Your task to perform on an android device: Do I have any events tomorrow? Image 0: 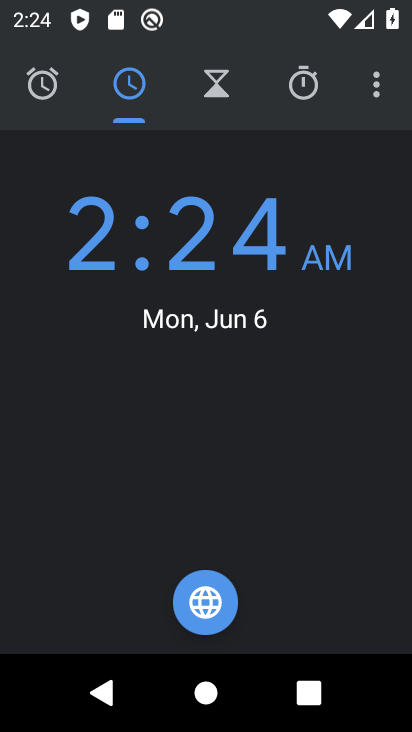
Step 0: press home button
Your task to perform on an android device: Do I have any events tomorrow? Image 1: 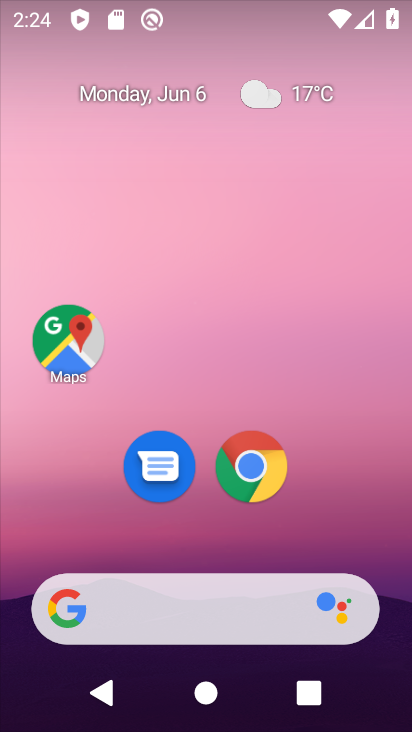
Step 1: drag from (360, 552) to (107, 9)
Your task to perform on an android device: Do I have any events tomorrow? Image 2: 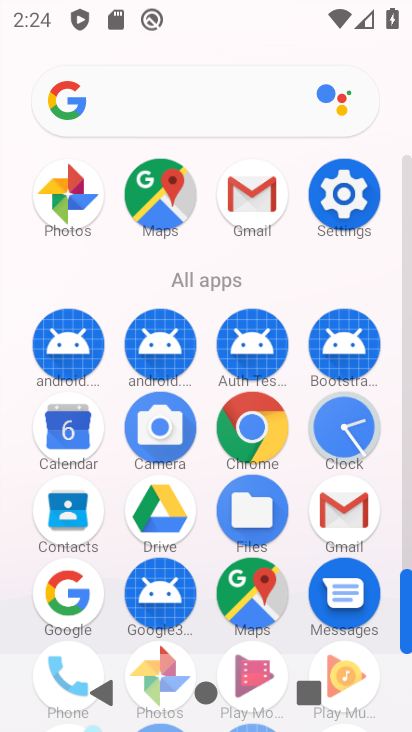
Step 2: click (64, 436)
Your task to perform on an android device: Do I have any events tomorrow? Image 3: 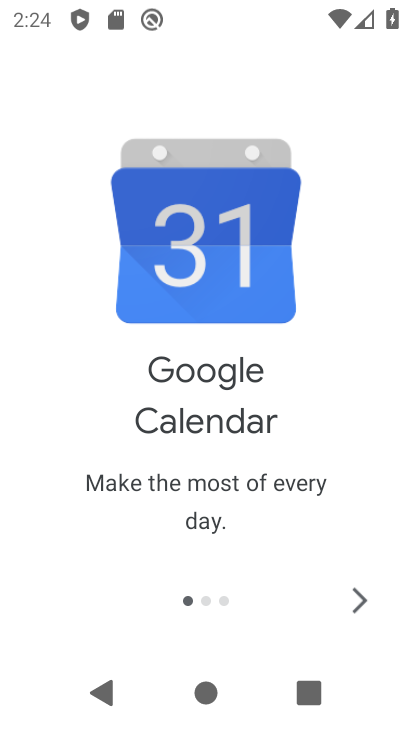
Step 3: click (369, 609)
Your task to perform on an android device: Do I have any events tomorrow? Image 4: 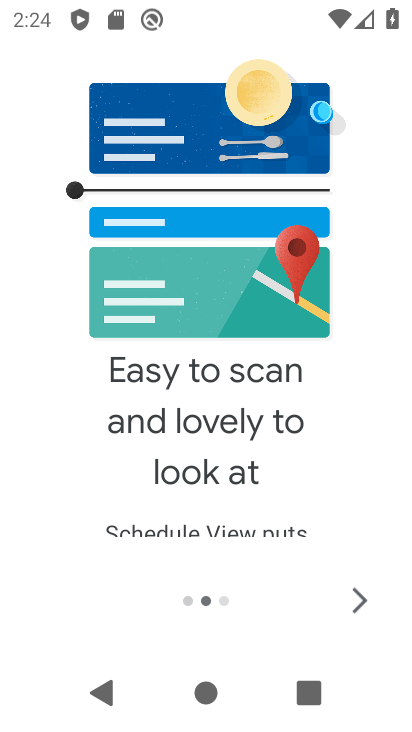
Step 4: click (365, 607)
Your task to perform on an android device: Do I have any events tomorrow? Image 5: 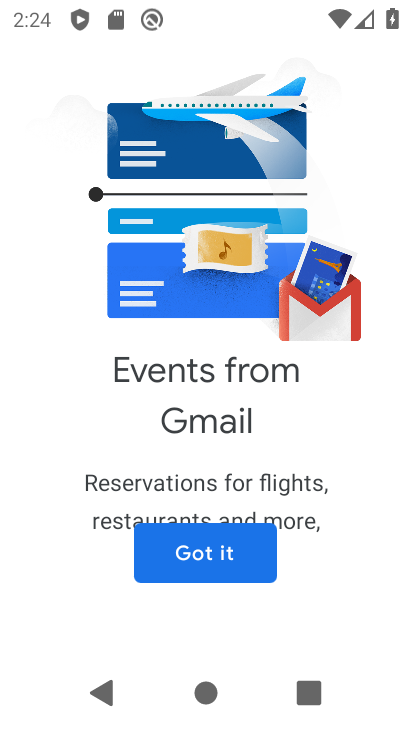
Step 5: click (211, 571)
Your task to perform on an android device: Do I have any events tomorrow? Image 6: 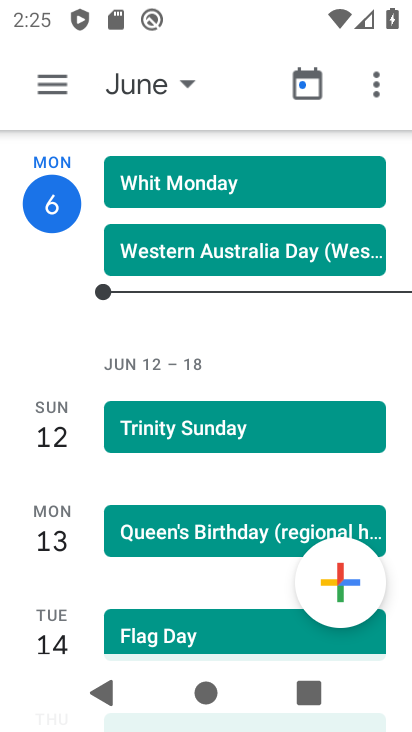
Step 6: click (62, 574)
Your task to perform on an android device: Do I have any events tomorrow? Image 7: 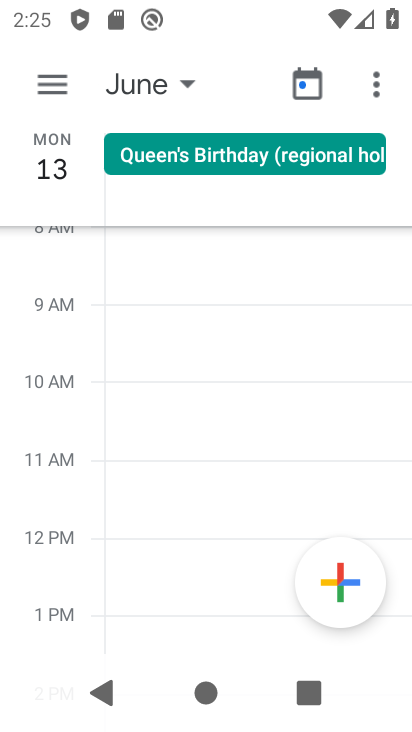
Step 7: click (184, 81)
Your task to perform on an android device: Do I have any events tomorrow? Image 8: 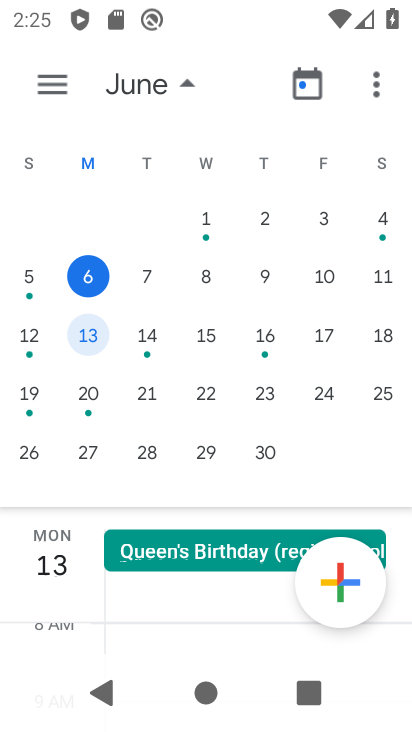
Step 8: click (168, 81)
Your task to perform on an android device: Do I have any events tomorrow? Image 9: 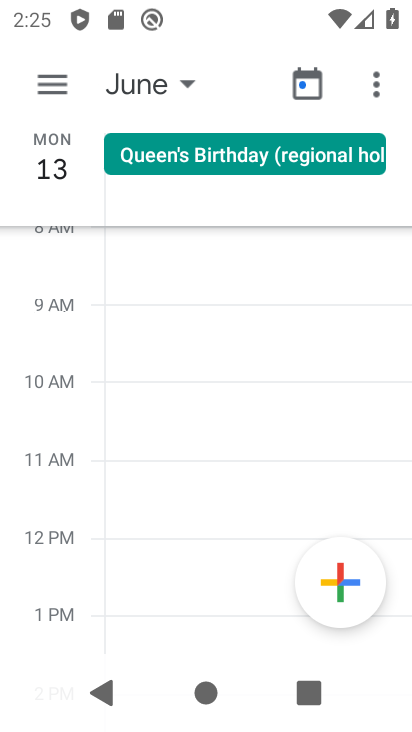
Step 9: click (168, 81)
Your task to perform on an android device: Do I have any events tomorrow? Image 10: 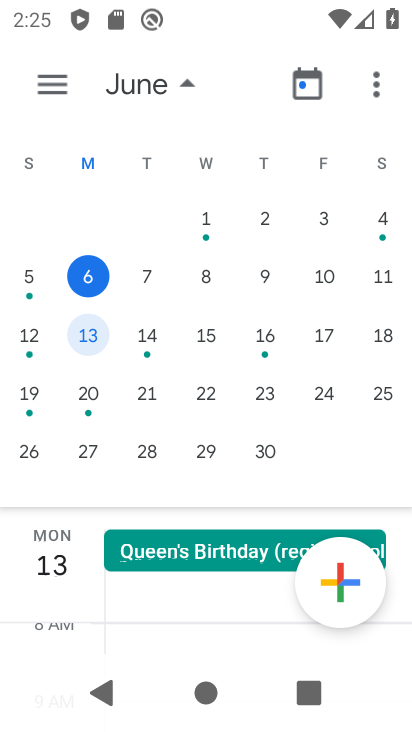
Step 10: click (150, 275)
Your task to perform on an android device: Do I have any events tomorrow? Image 11: 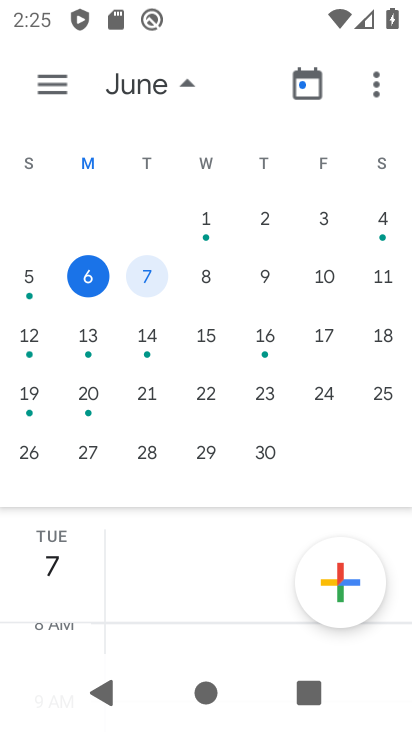
Step 11: task complete